Your task to perform on an android device: uninstall "The Home Depot" Image 0: 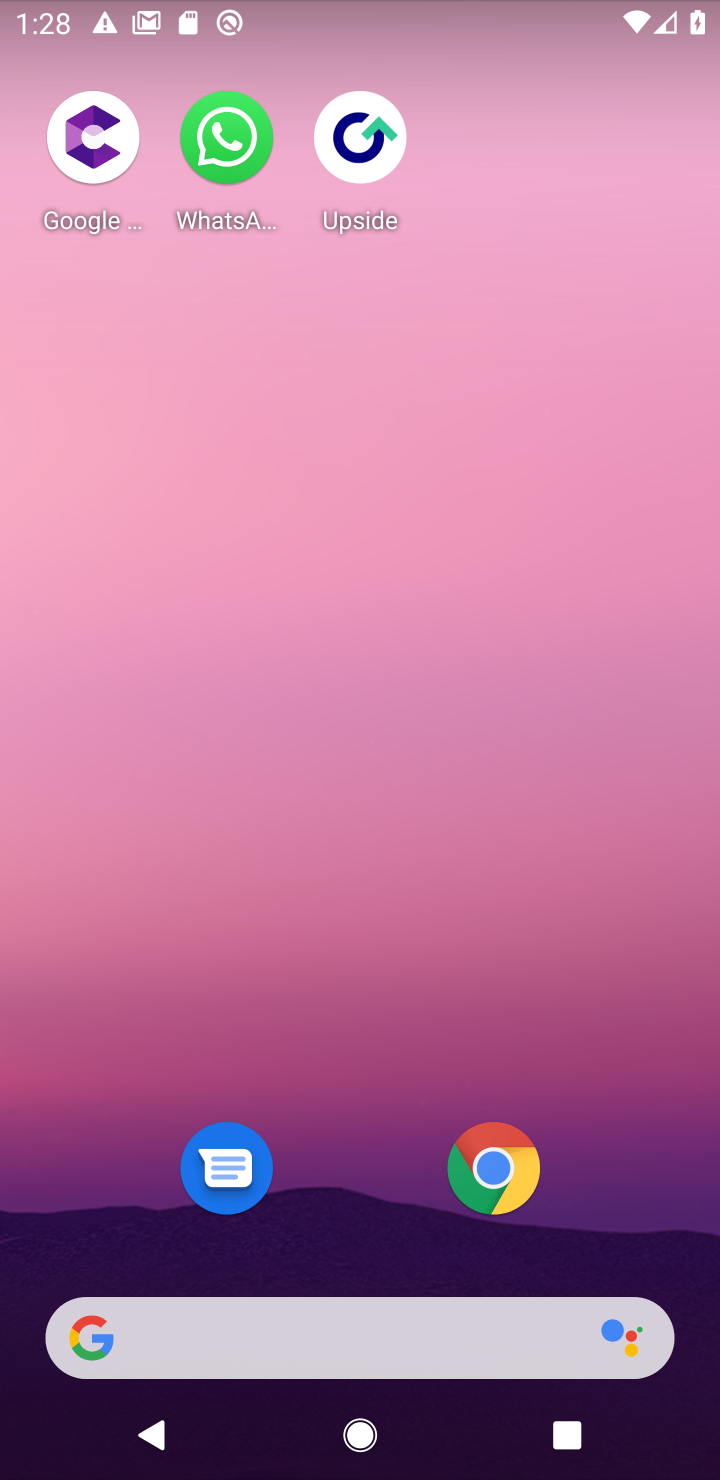
Step 0: drag from (298, 1340) to (499, 81)
Your task to perform on an android device: uninstall "The Home Depot" Image 1: 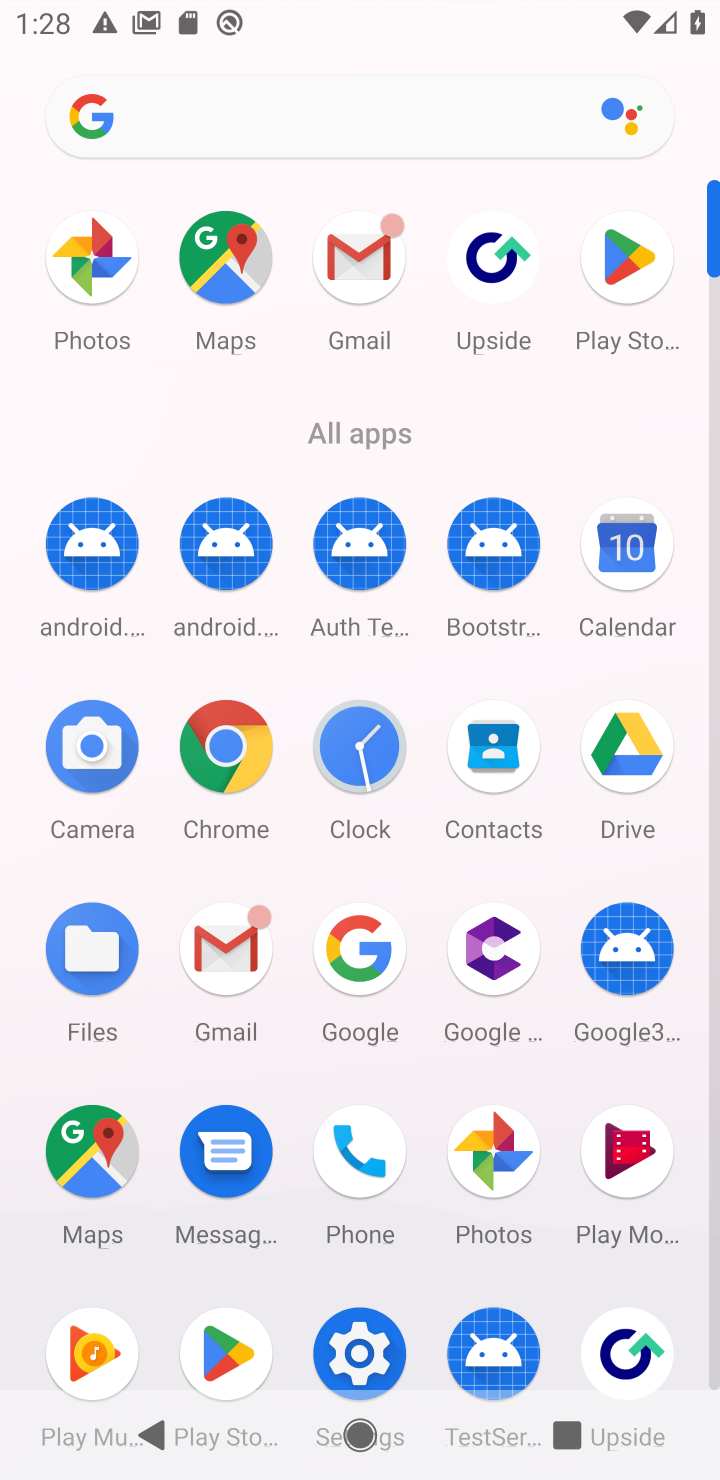
Step 1: click (622, 261)
Your task to perform on an android device: uninstall "The Home Depot" Image 2: 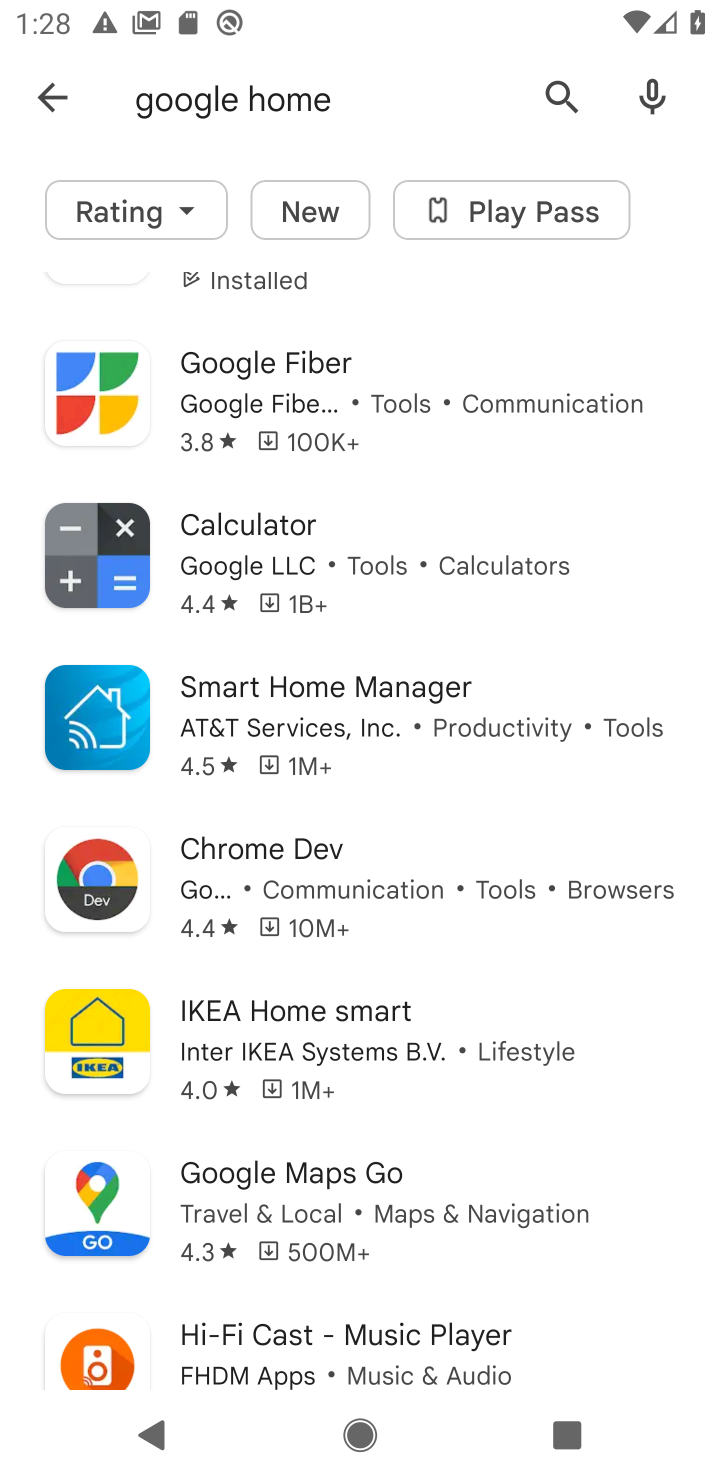
Step 2: click (553, 89)
Your task to perform on an android device: uninstall "The Home Depot" Image 3: 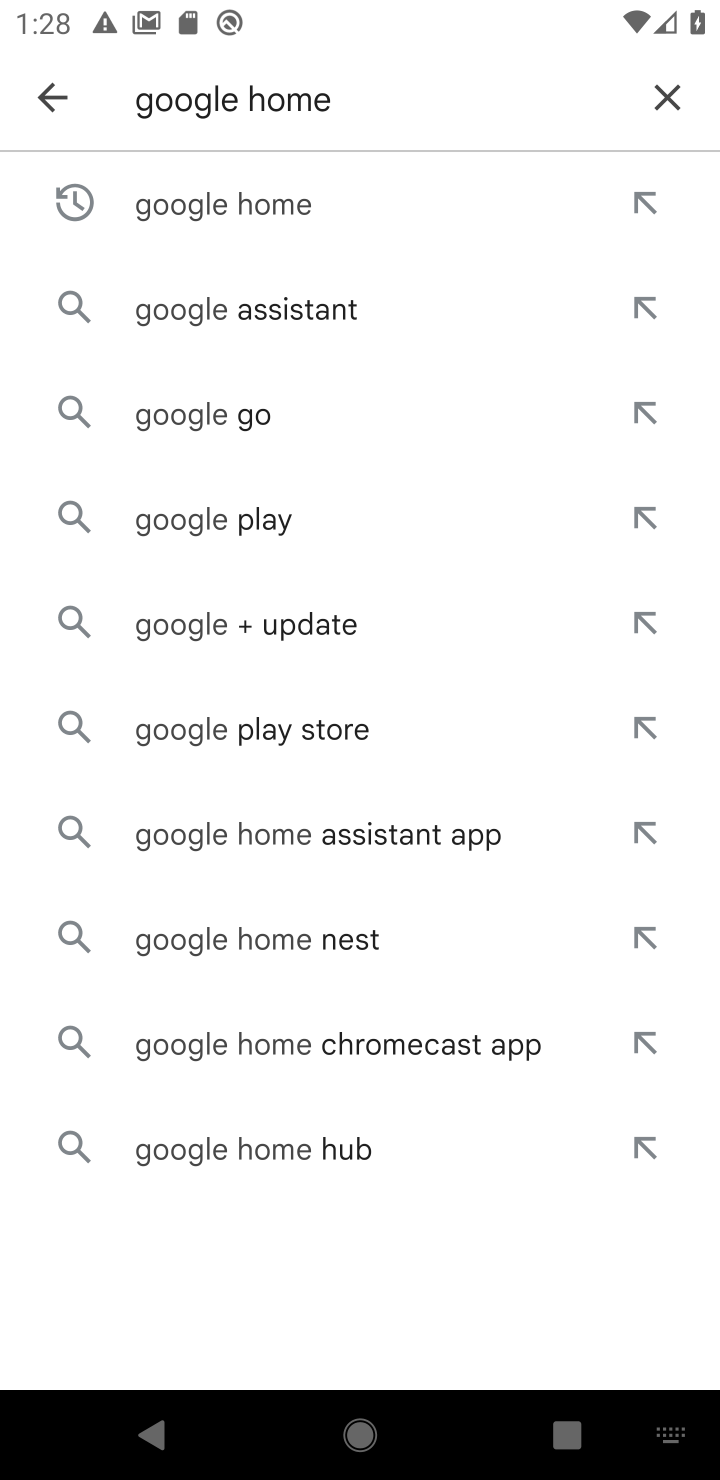
Step 3: click (669, 90)
Your task to perform on an android device: uninstall "The Home Depot" Image 4: 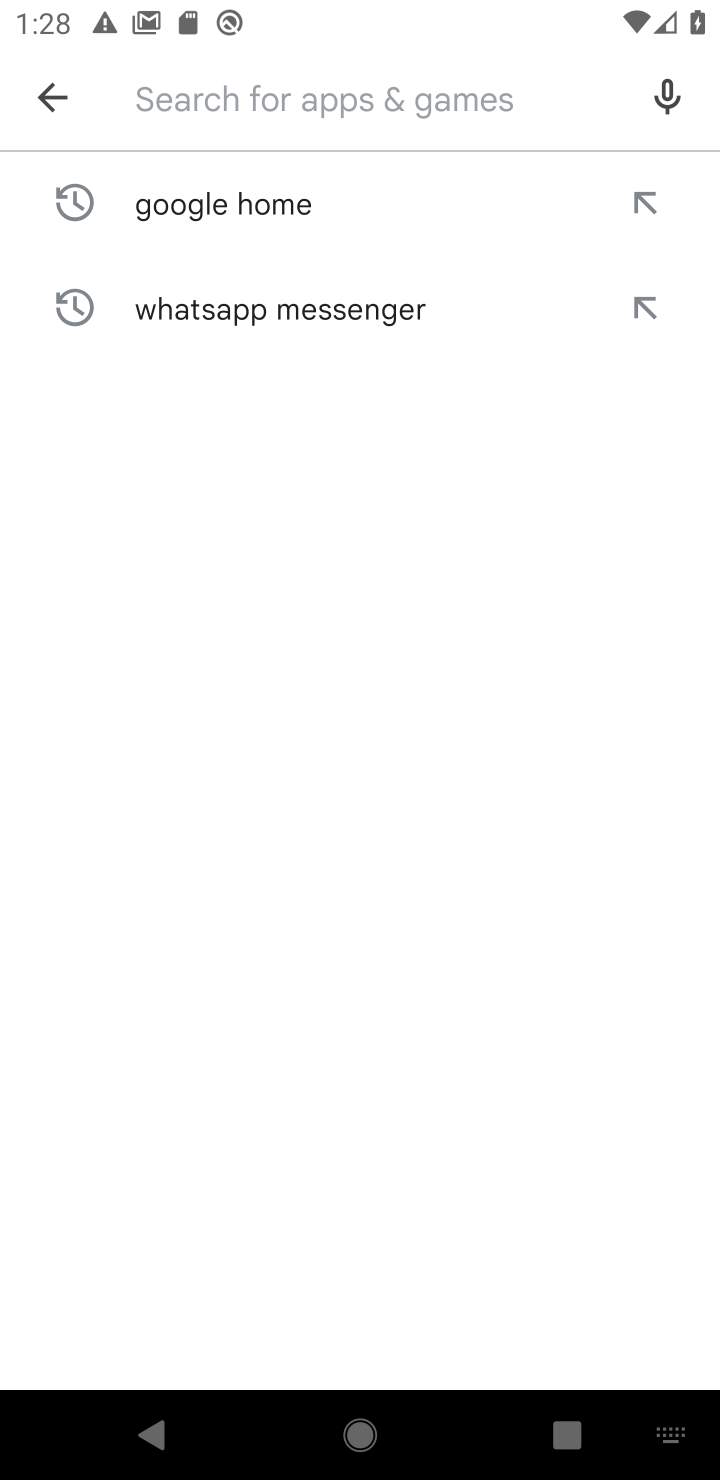
Step 4: type "The Home Depot"
Your task to perform on an android device: uninstall "The Home Depot" Image 5: 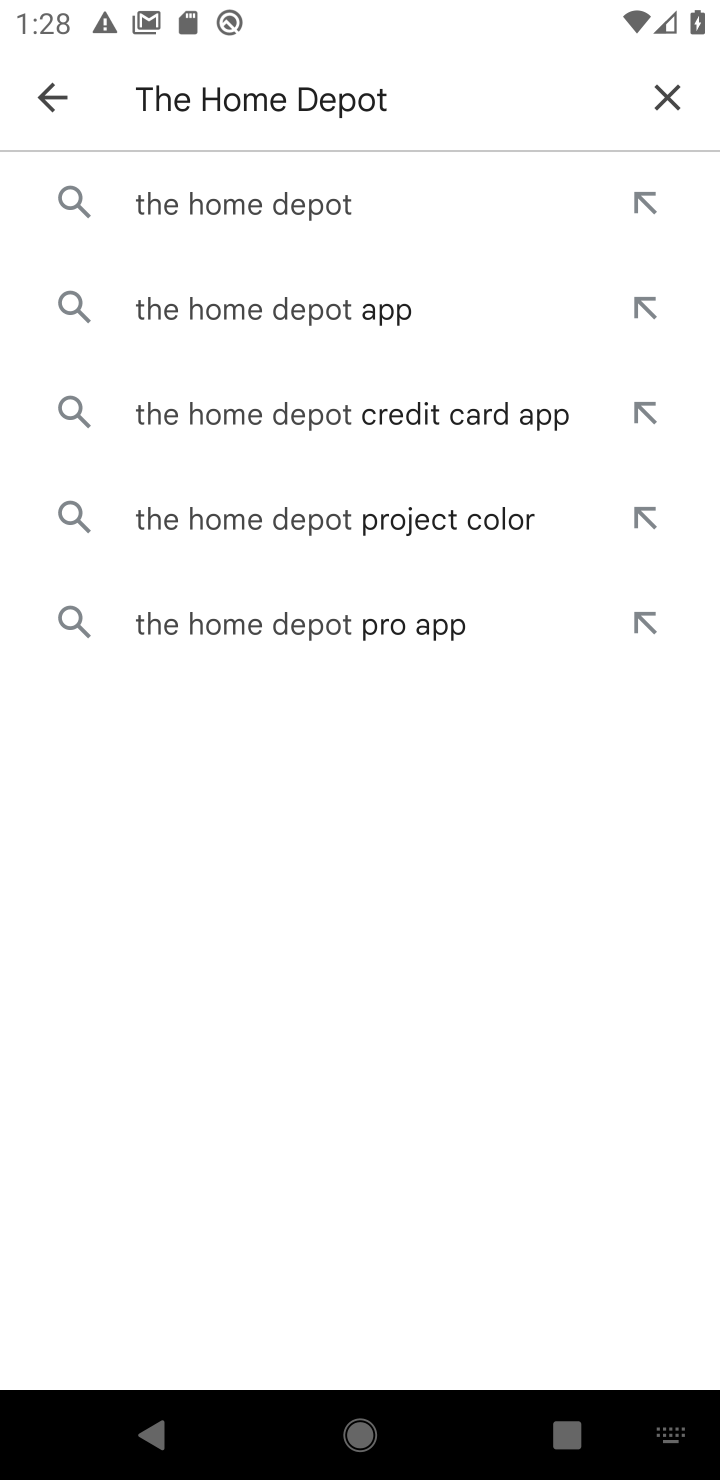
Step 5: click (267, 227)
Your task to perform on an android device: uninstall "The Home Depot" Image 6: 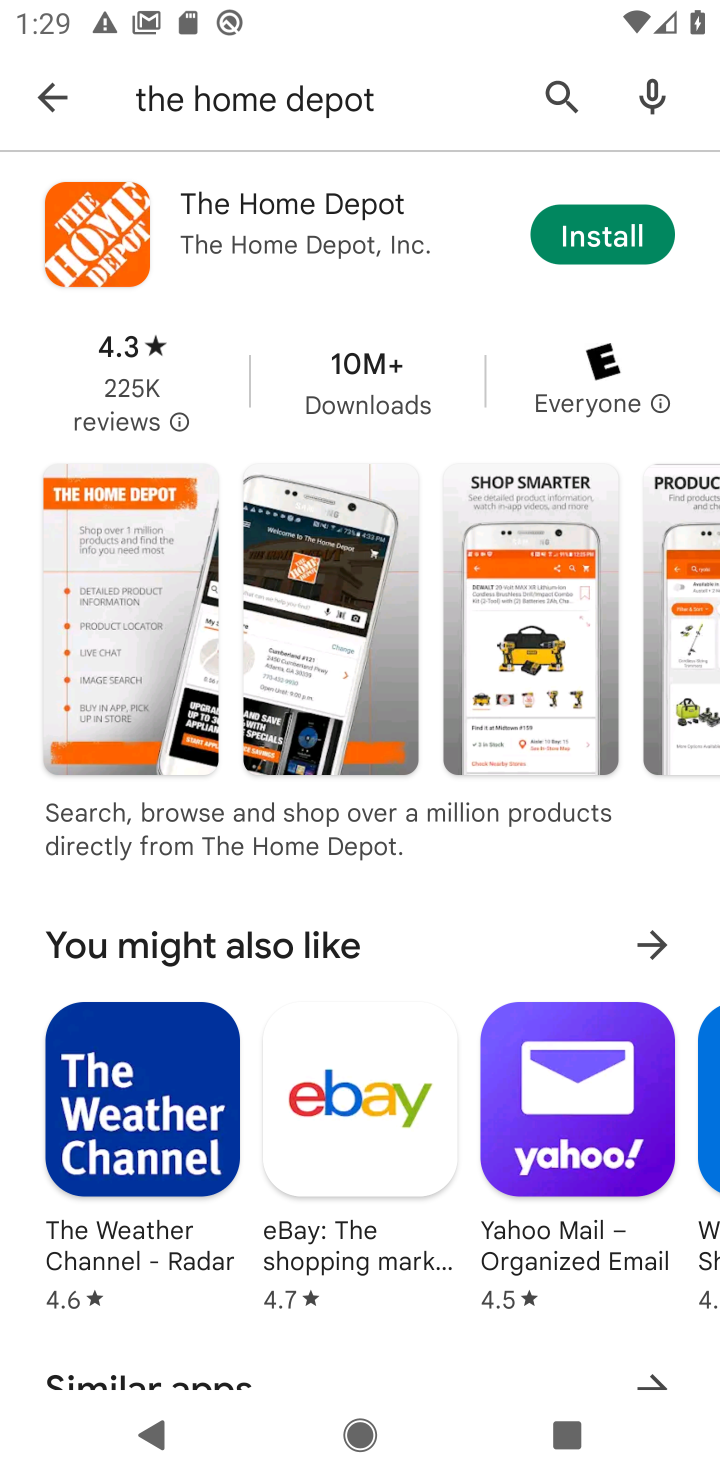
Step 6: task complete